Your task to perform on an android device: install app "Google Pay: Save, Pay, Manage" Image 0: 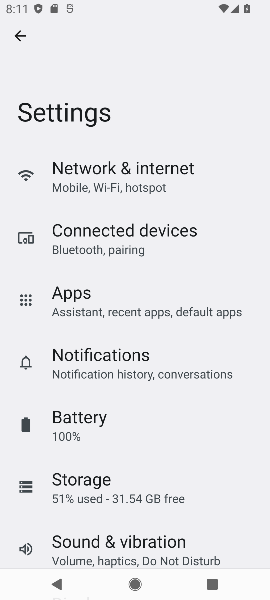
Step 0: press home button
Your task to perform on an android device: install app "Google Pay: Save, Pay, Manage" Image 1: 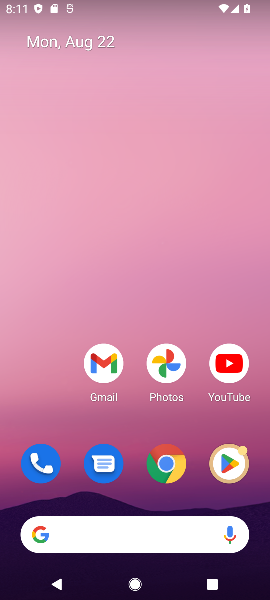
Step 1: drag from (124, 483) to (106, 0)
Your task to perform on an android device: install app "Google Pay: Save, Pay, Manage" Image 2: 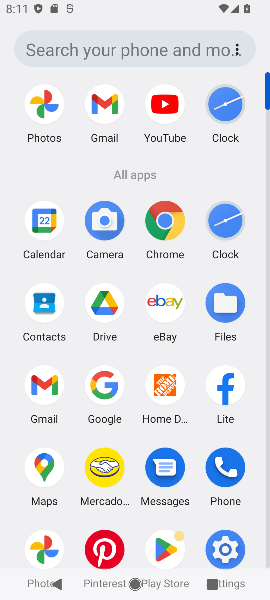
Step 2: click (162, 541)
Your task to perform on an android device: install app "Google Pay: Save, Pay, Manage" Image 3: 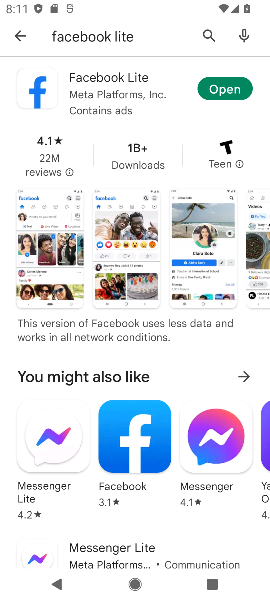
Step 3: click (18, 33)
Your task to perform on an android device: install app "Google Pay: Save, Pay, Manage" Image 4: 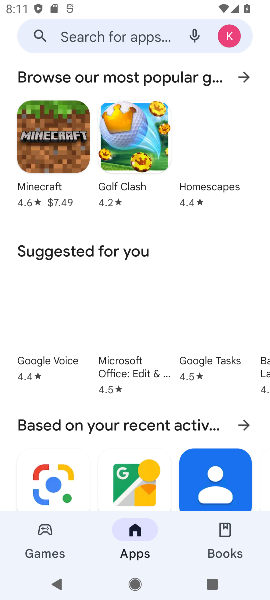
Step 4: click (120, 38)
Your task to perform on an android device: install app "Google Pay: Save, Pay, Manage" Image 5: 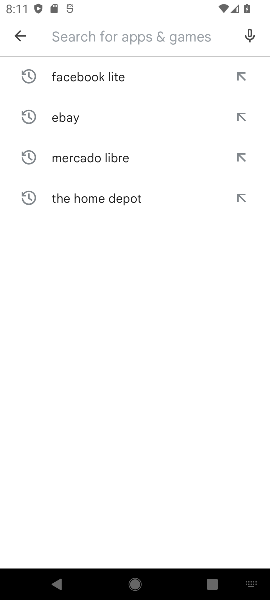
Step 5: type "Google Pay"
Your task to perform on an android device: install app "Google Pay: Save, Pay, Manage" Image 6: 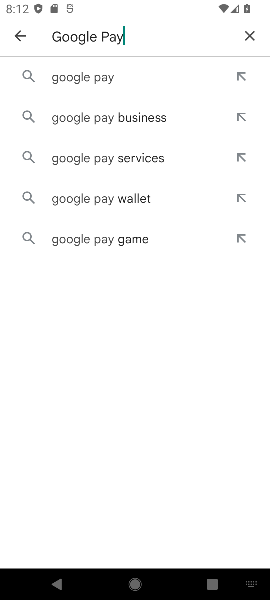
Step 6: click (107, 76)
Your task to perform on an android device: install app "Google Pay: Save, Pay, Manage" Image 7: 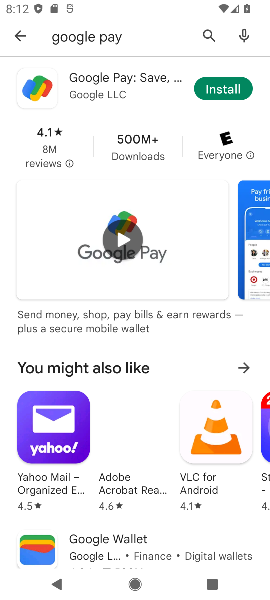
Step 7: click (216, 84)
Your task to perform on an android device: install app "Google Pay: Save, Pay, Manage" Image 8: 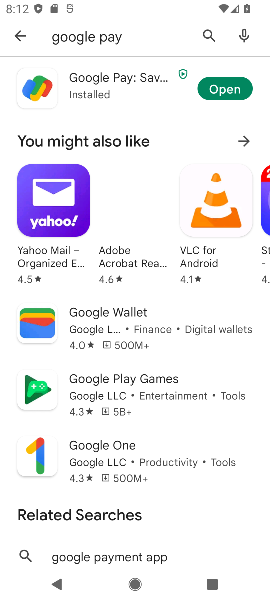
Step 8: task complete